Your task to perform on an android device: add a contact Image 0: 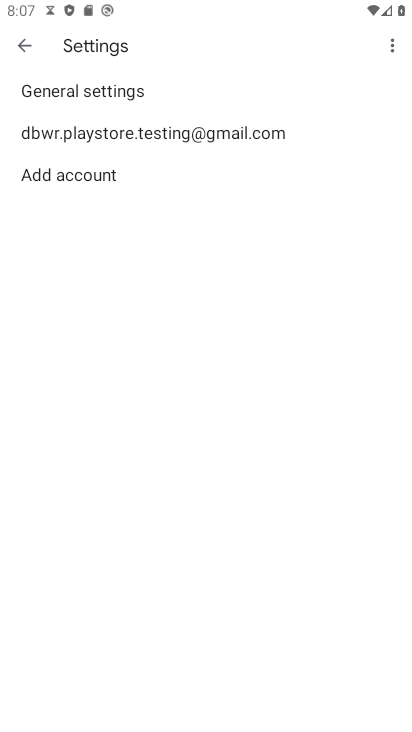
Step 0: click (316, 448)
Your task to perform on an android device: add a contact Image 1: 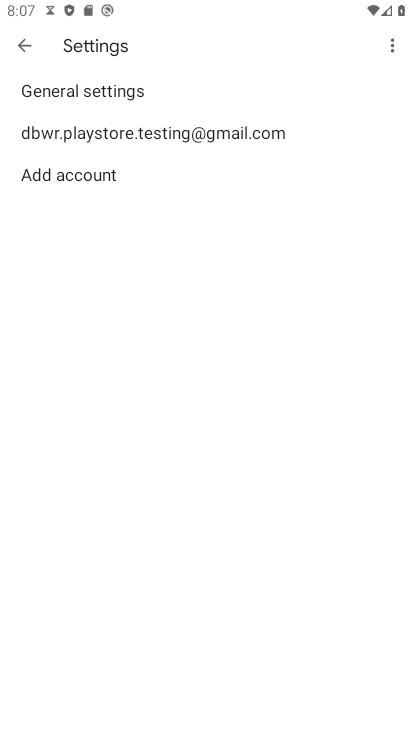
Step 1: press home button
Your task to perform on an android device: add a contact Image 2: 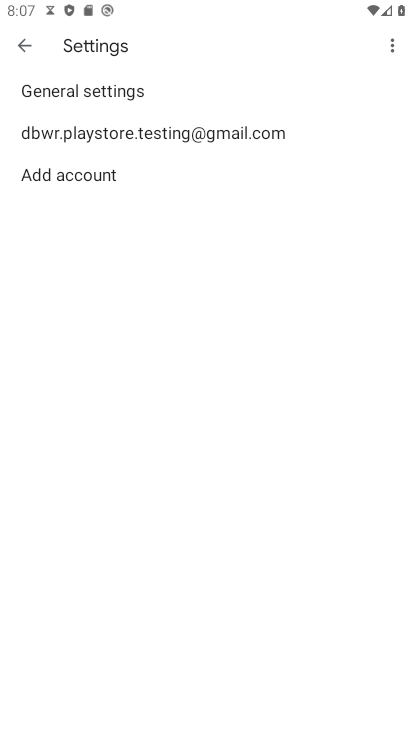
Step 2: press home button
Your task to perform on an android device: add a contact Image 3: 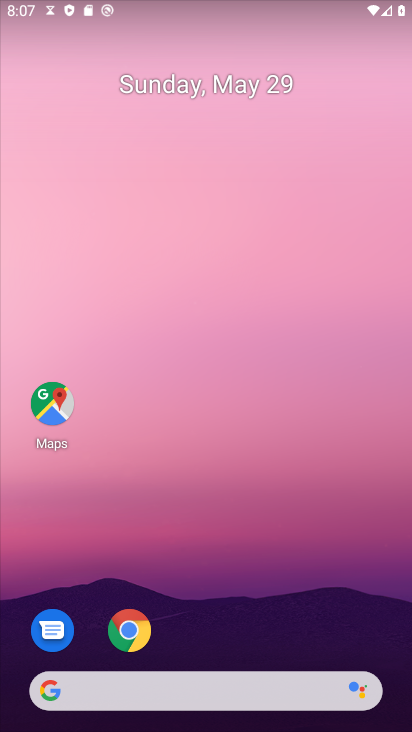
Step 3: drag from (316, 577) to (346, 203)
Your task to perform on an android device: add a contact Image 4: 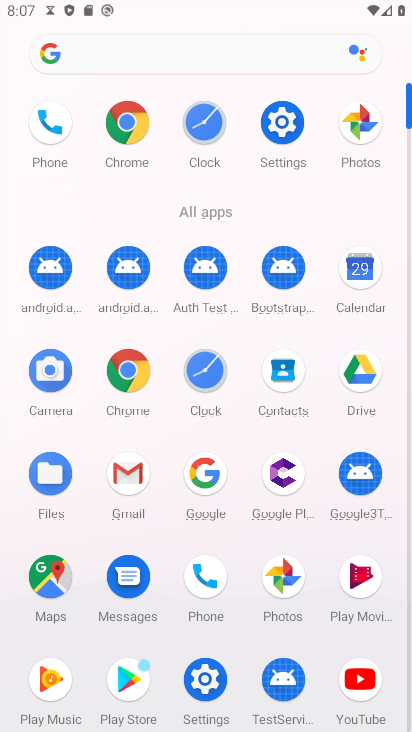
Step 4: click (276, 373)
Your task to perform on an android device: add a contact Image 5: 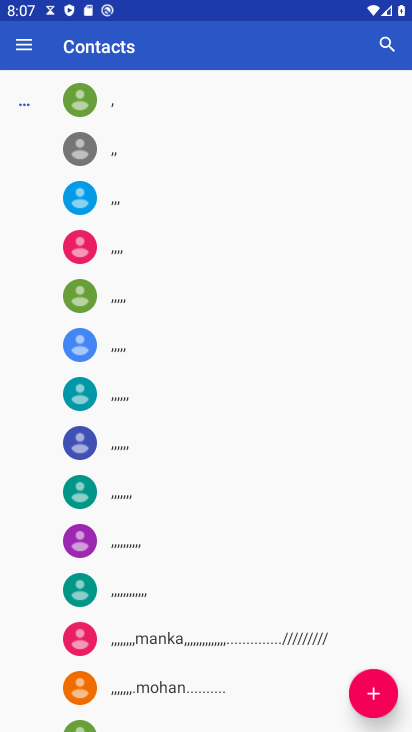
Step 5: click (360, 687)
Your task to perform on an android device: add a contact Image 6: 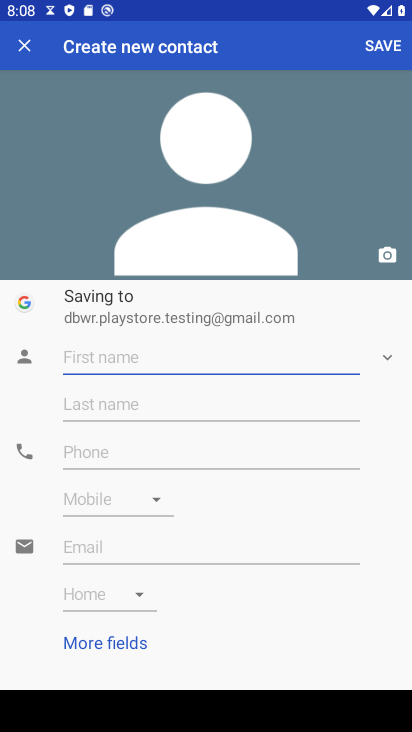
Step 6: type "gjgk"
Your task to perform on an android device: add a contact Image 7: 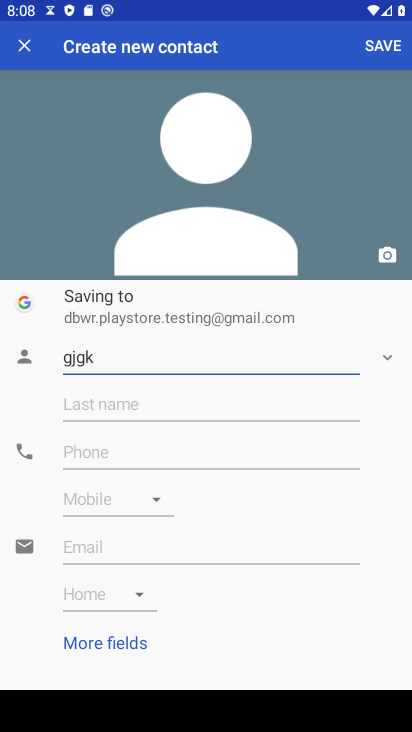
Step 7: click (144, 459)
Your task to perform on an android device: add a contact Image 8: 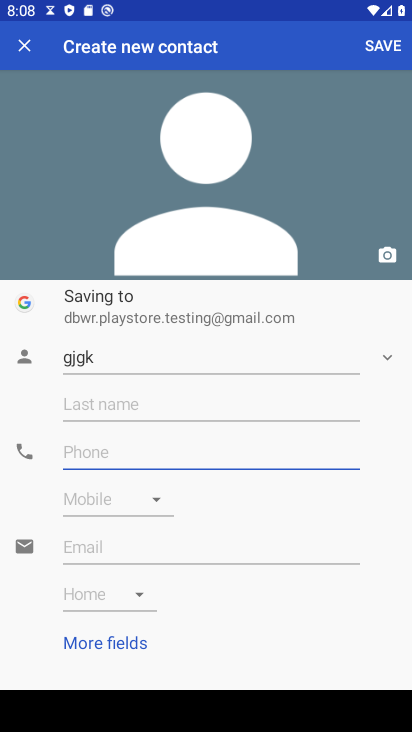
Step 8: click (144, 459)
Your task to perform on an android device: add a contact Image 9: 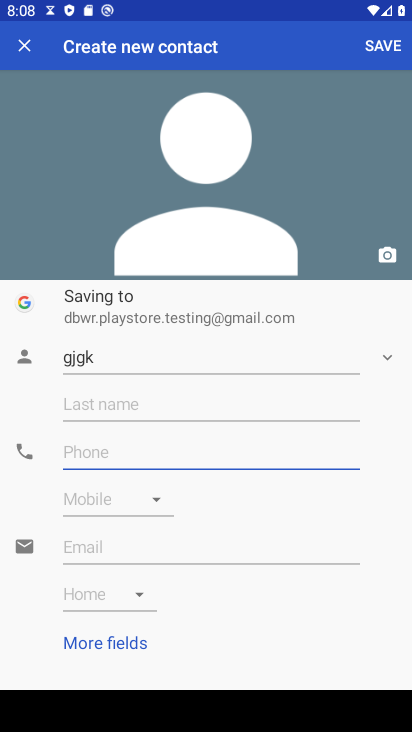
Step 9: click (144, 459)
Your task to perform on an android device: add a contact Image 10: 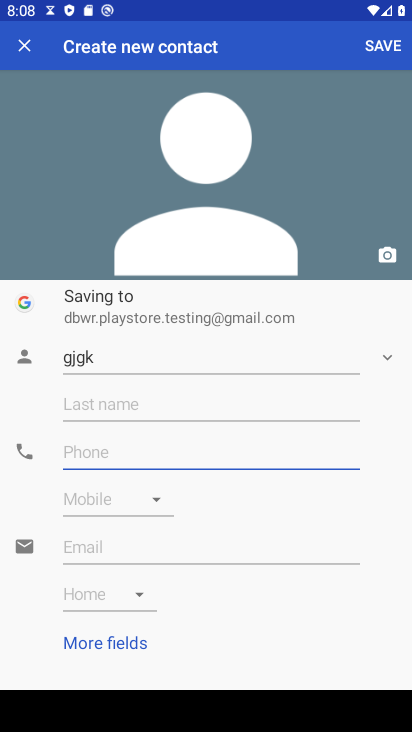
Step 10: type "66666"
Your task to perform on an android device: add a contact Image 11: 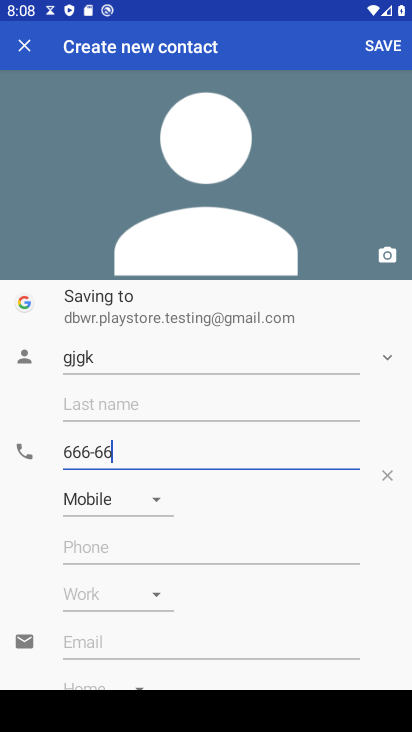
Step 11: click (381, 49)
Your task to perform on an android device: add a contact Image 12: 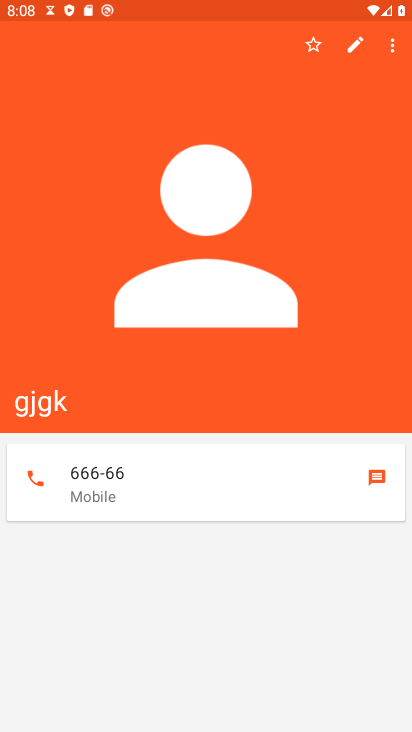
Step 12: task complete